Your task to perform on an android device: Open Wikipedia Image 0: 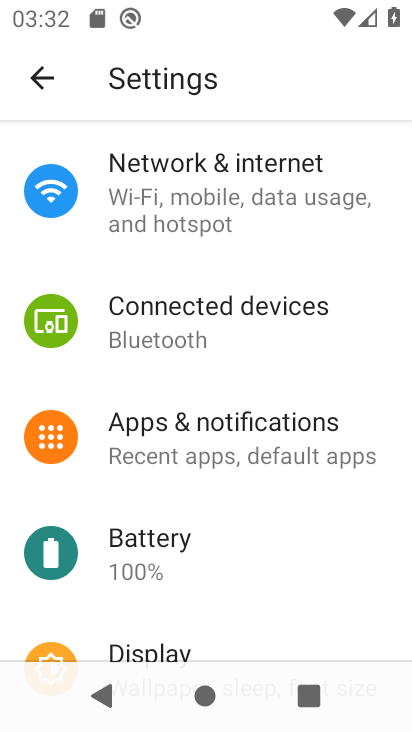
Step 0: press back button
Your task to perform on an android device: Open Wikipedia Image 1: 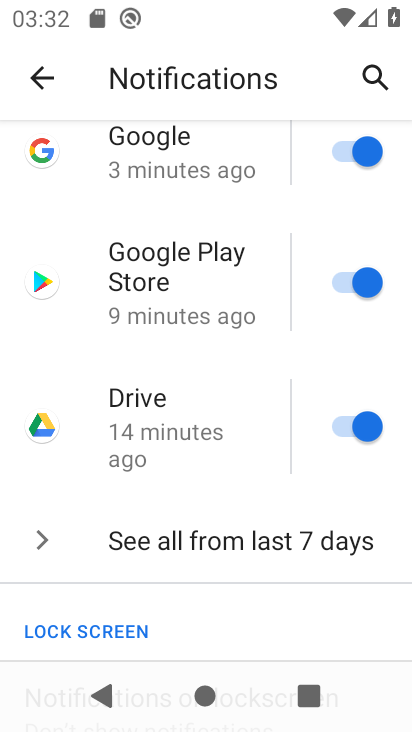
Step 1: press back button
Your task to perform on an android device: Open Wikipedia Image 2: 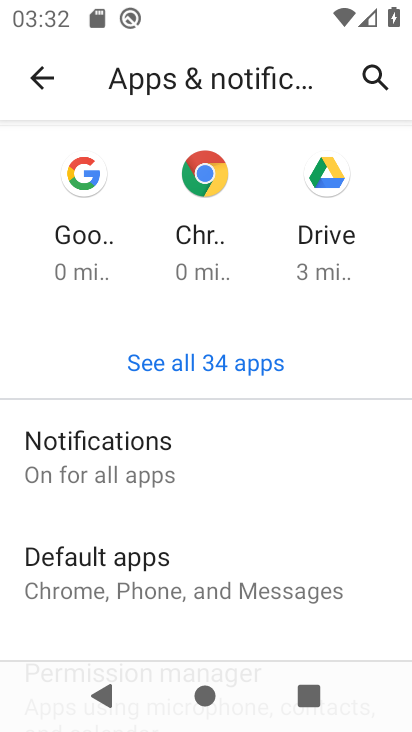
Step 2: press back button
Your task to perform on an android device: Open Wikipedia Image 3: 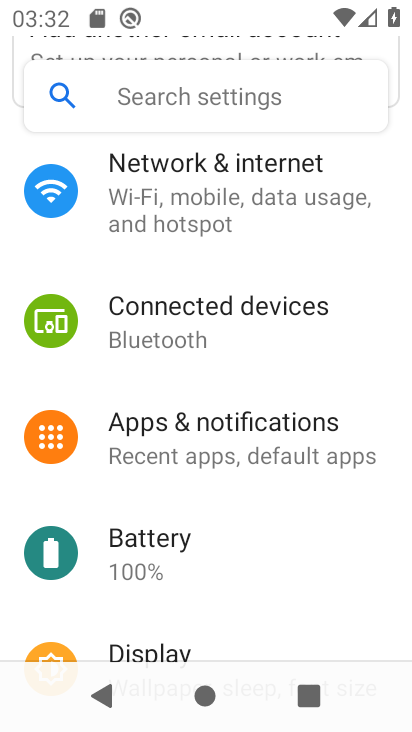
Step 3: press back button
Your task to perform on an android device: Open Wikipedia Image 4: 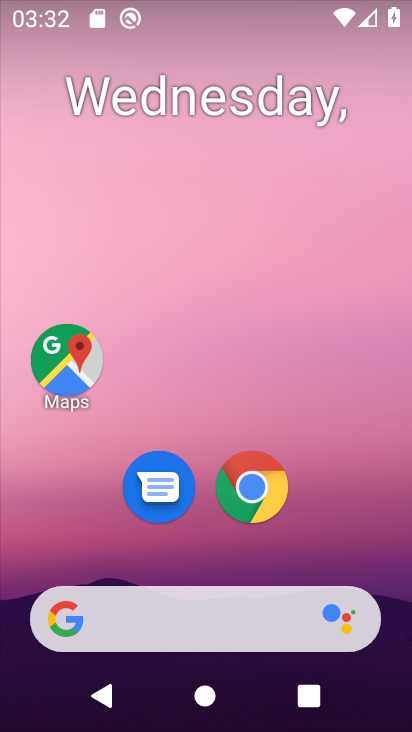
Step 4: click (254, 488)
Your task to perform on an android device: Open Wikipedia Image 5: 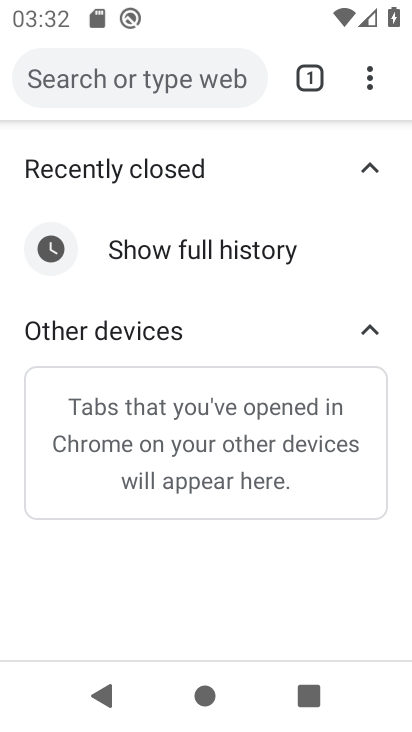
Step 5: click (206, 89)
Your task to perform on an android device: Open Wikipedia Image 6: 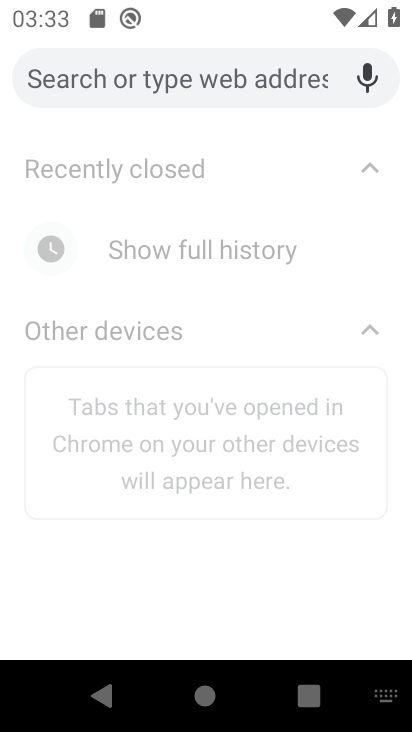
Step 6: type "Wikipedia"
Your task to perform on an android device: Open Wikipedia Image 7: 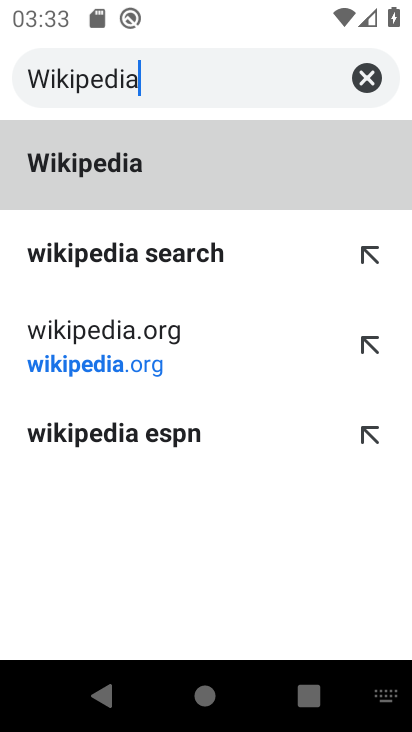
Step 7: type ""
Your task to perform on an android device: Open Wikipedia Image 8: 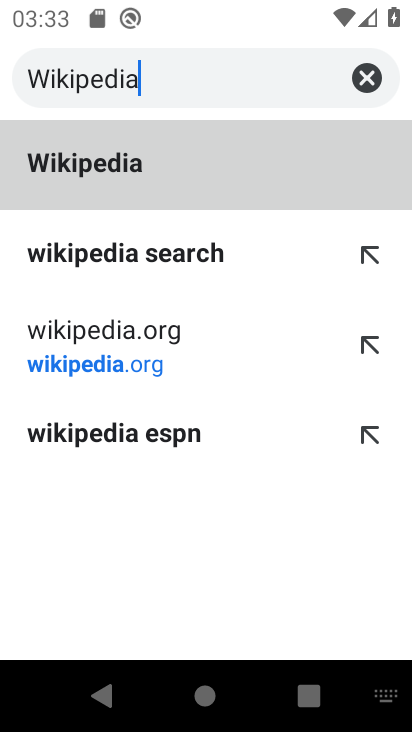
Step 8: click (109, 167)
Your task to perform on an android device: Open Wikipedia Image 9: 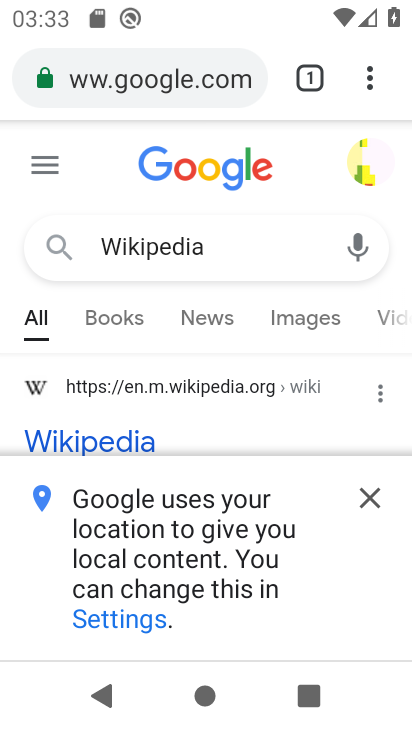
Step 9: click (372, 499)
Your task to perform on an android device: Open Wikipedia Image 10: 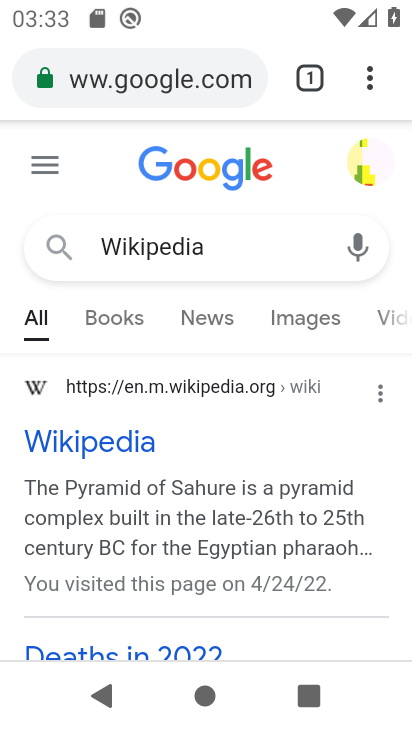
Step 10: click (98, 437)
Your task to perform on an android device: Open Wikipedia Image 11: 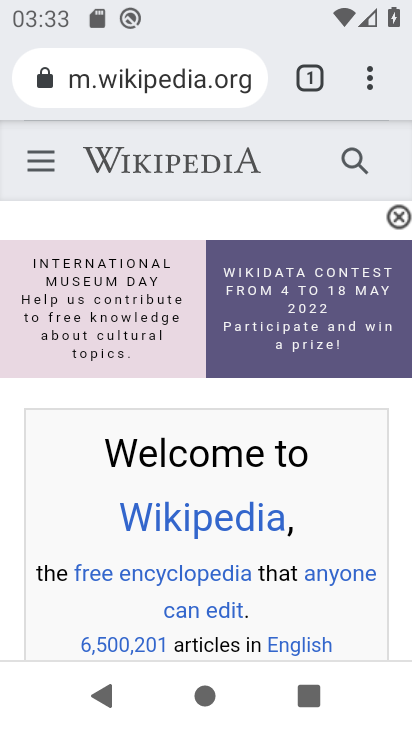
Step 11: task complete